Your task to perform on an android device: Open Maps and search for coffee Image 0: 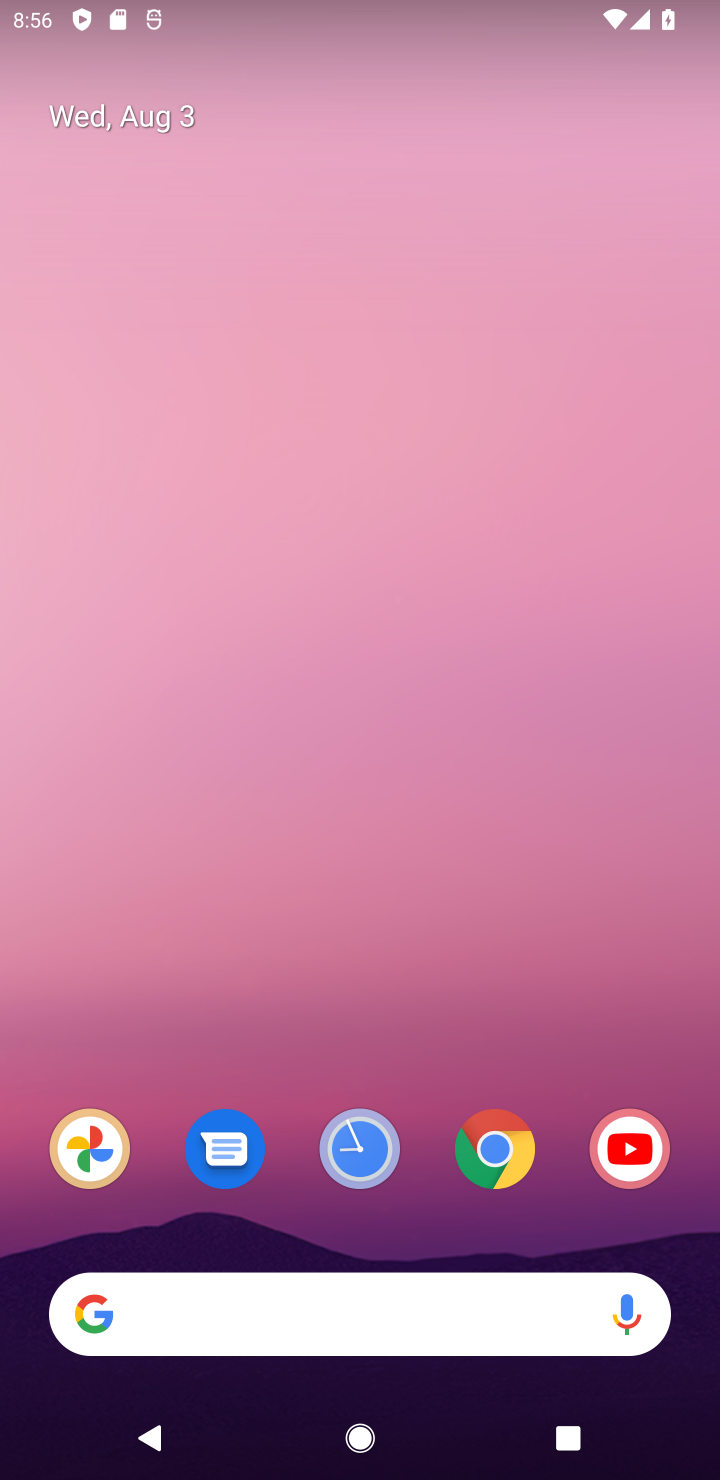
Step 0: drag from (446, 1074) to (335, 74)
Your task to perform on an android device: Open Maps and search for coffee Image 1: 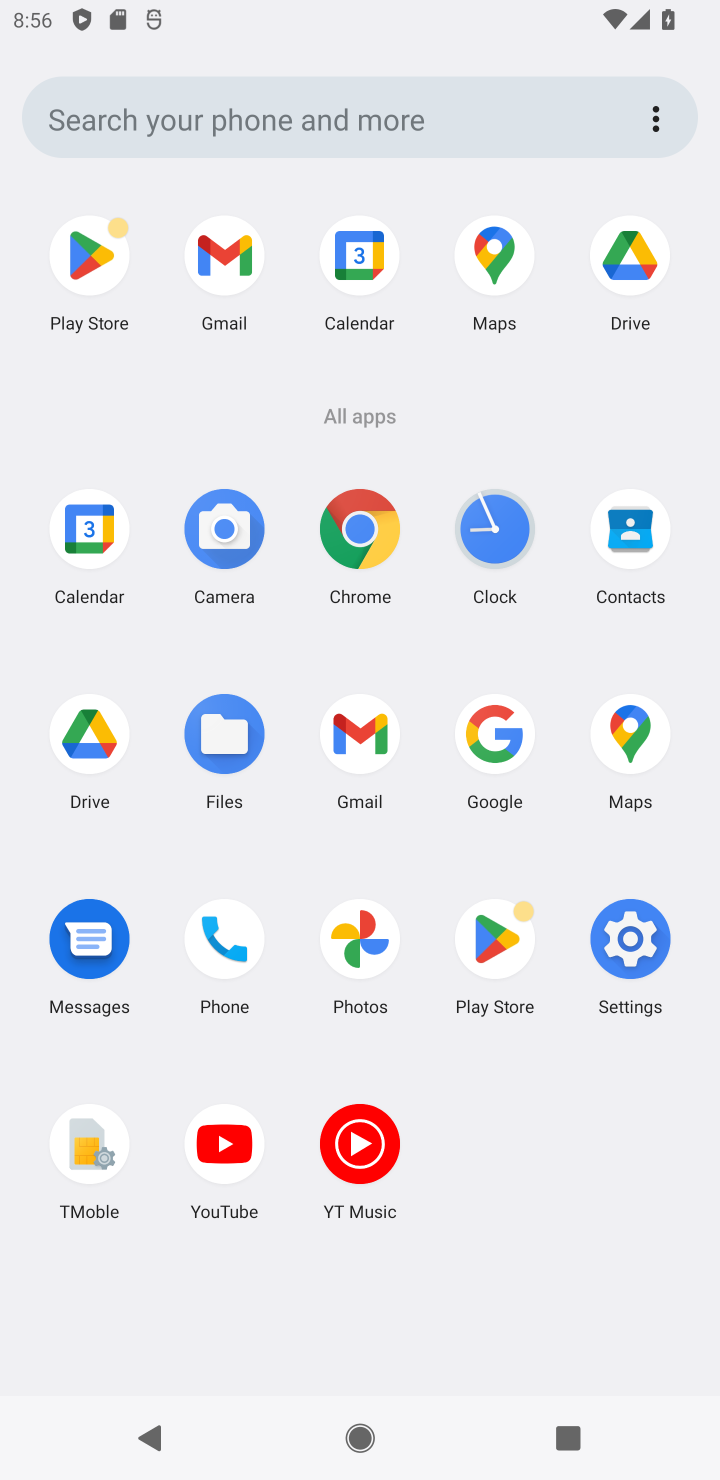
Step 1: click (490, 266)
Your task to perform on an android device: Open Maps and search for coffee Image 2: 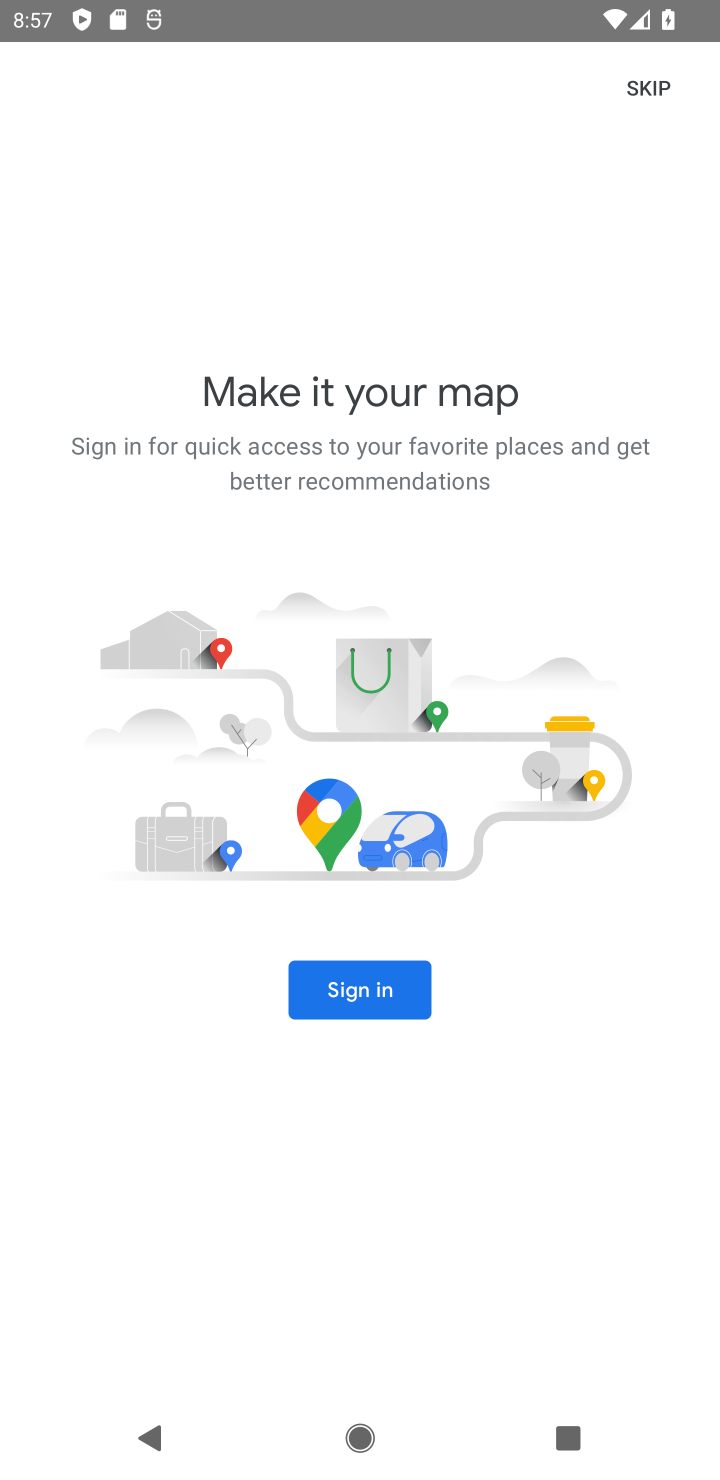
Step 2: click (649, 82)
Your task to perform on an android device: Open Maps and search for coffee Image 3: 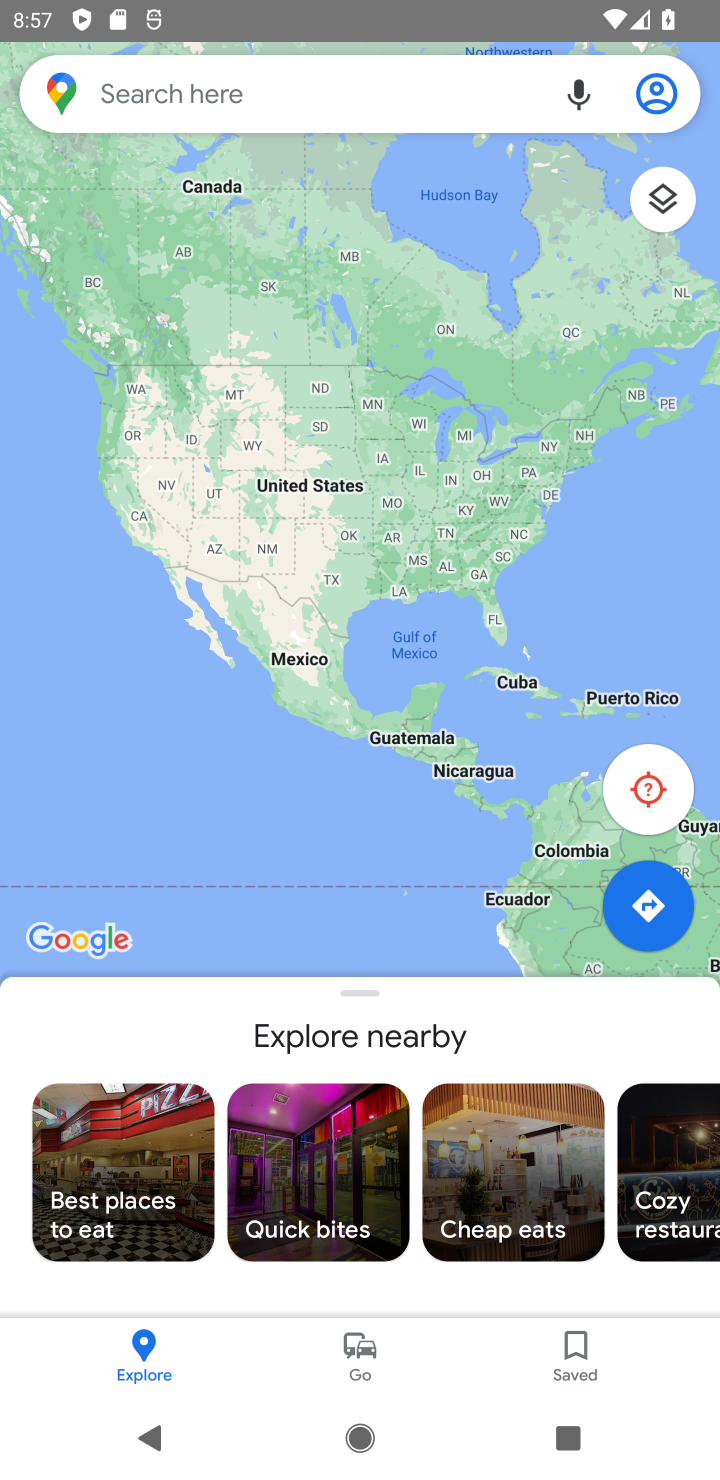
Step 3: click (276, 90)
Your task to perform on an android device: Open Maps and search for coffee Image 4: 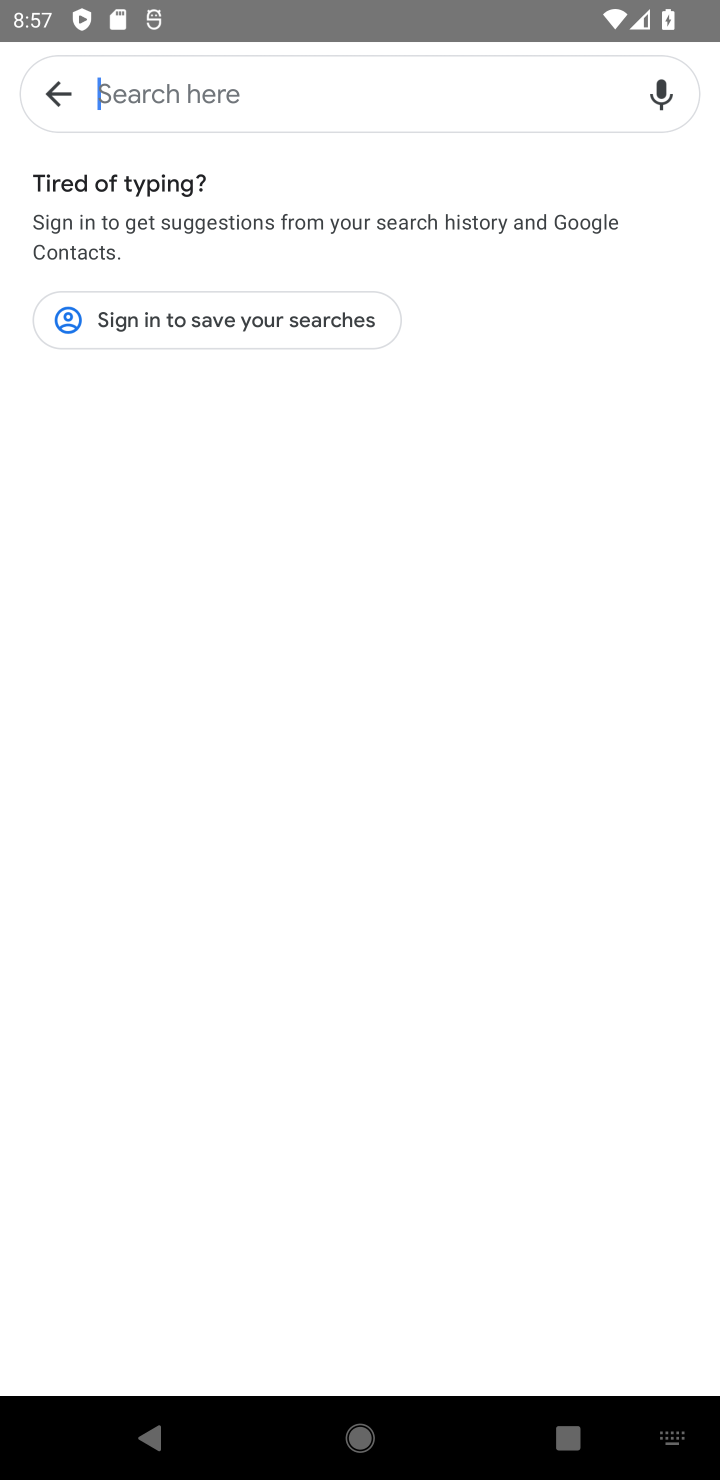
Step 4: type "coffee"
Your task to perform on an android device: Open Maps and search for coffee Image 5: 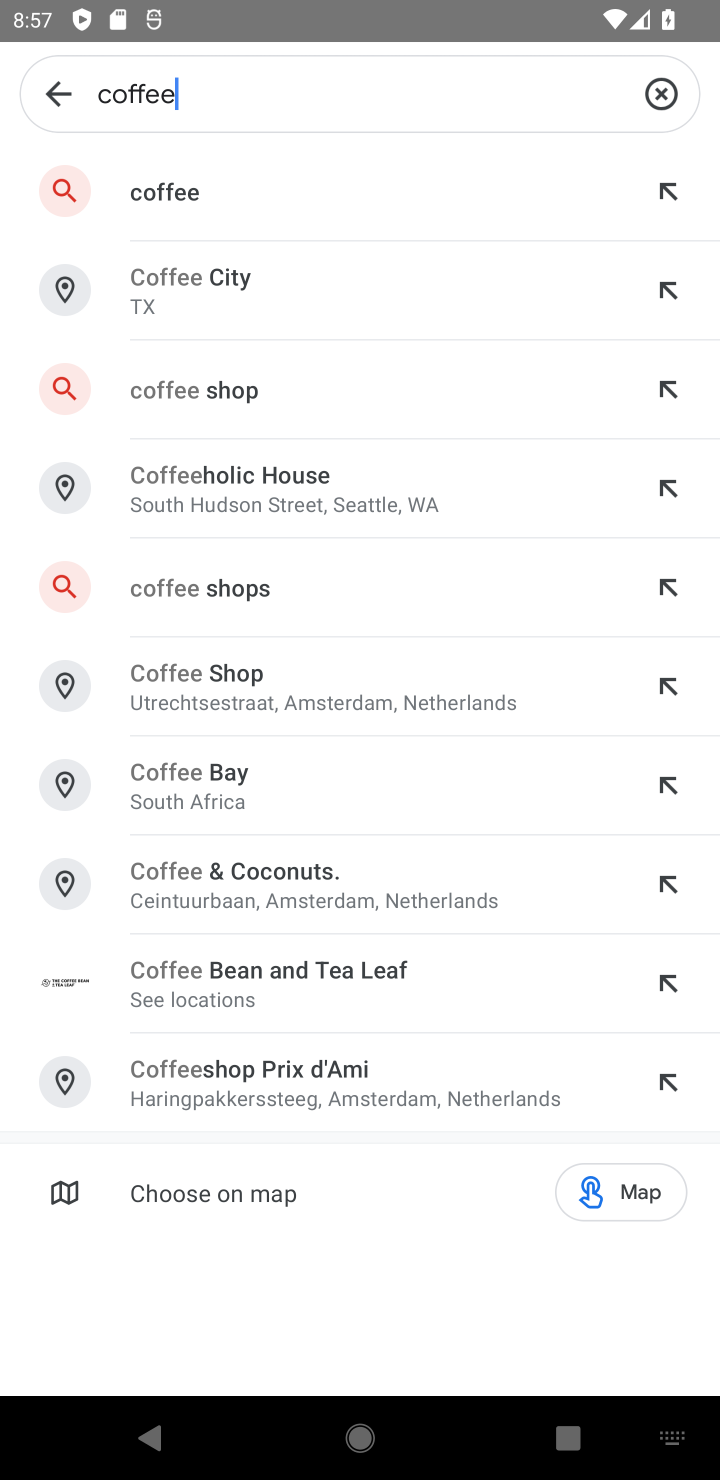
Step 5: click (437, 189)
Your task to perform on an android device: Open Maps and search for coffee Image 6: 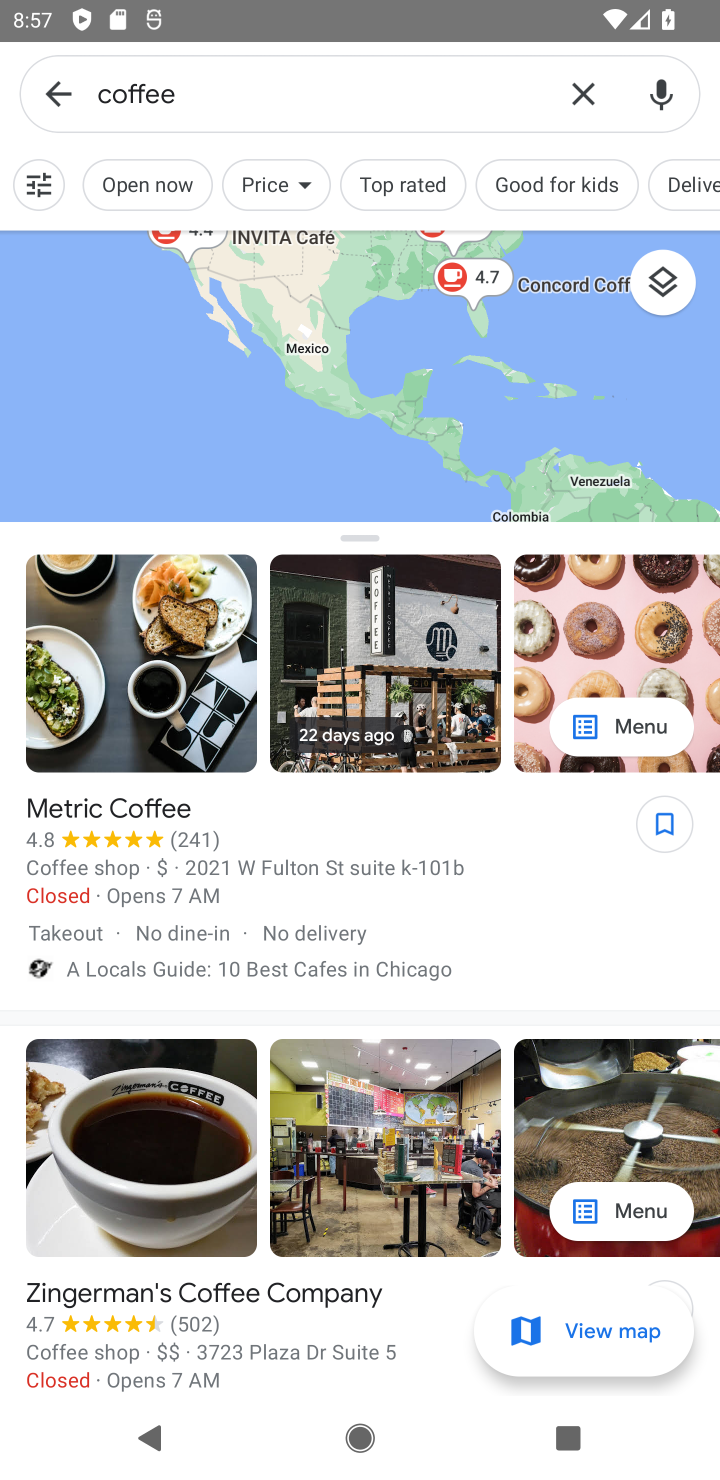
Step 6: task complete